Your task to perform on an android device: find snoozed emails in the gmail app Image 0: 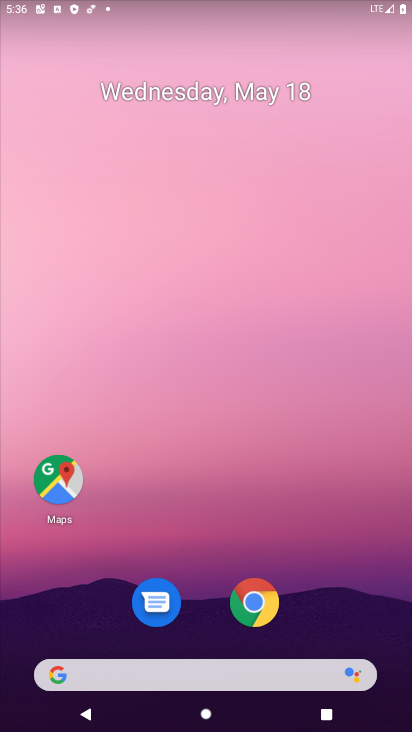
Step 0: drag from (317, 684) to (369, 2)
Your task to perform on an android device: find snoozed emails in the gmail app Image 1: 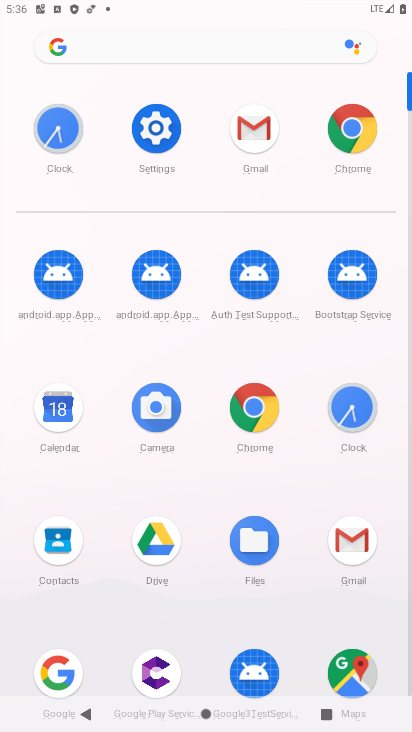
Step 1: click (355, 542)
Your task to perform on an android device: find snoozed emails in the gmail app Image 2: 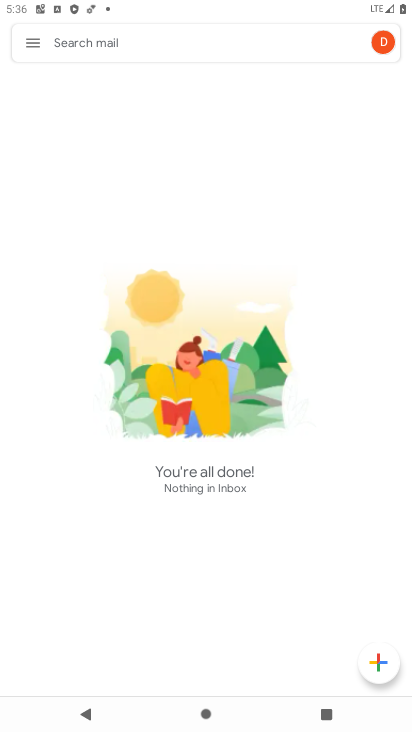
Step 2: click (24, 37)
Your task to perform on an android device: find snoozed emails in the gmail app Image 3: 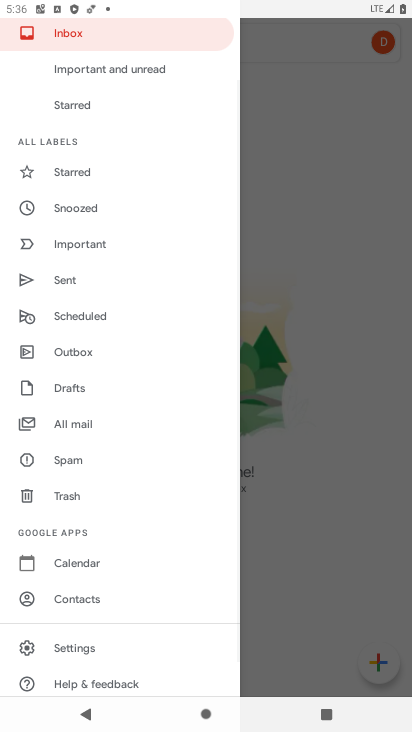
Step 3: drag from (160, 656) to (143, 473)
Your task to perform on an android device: find snoozed emails in the gmail app Image 4: 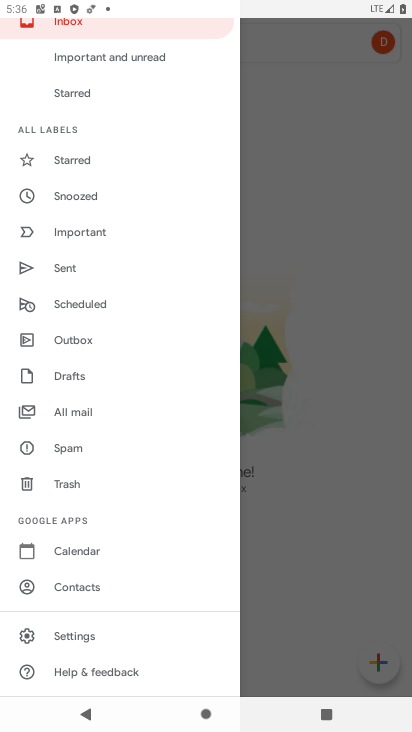
Step 4: click (88, 196)
Your task to perform on an android device: find snoozed emails in the gmail app Image 5: 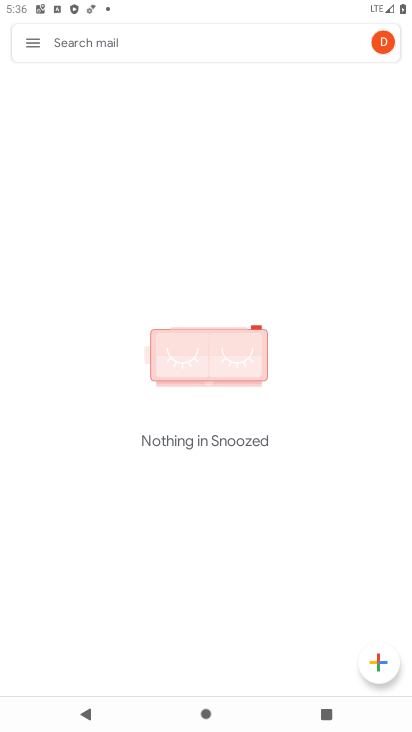
Step 5: task complete